Your task to perform on an android device: Open my contact list Image 0: 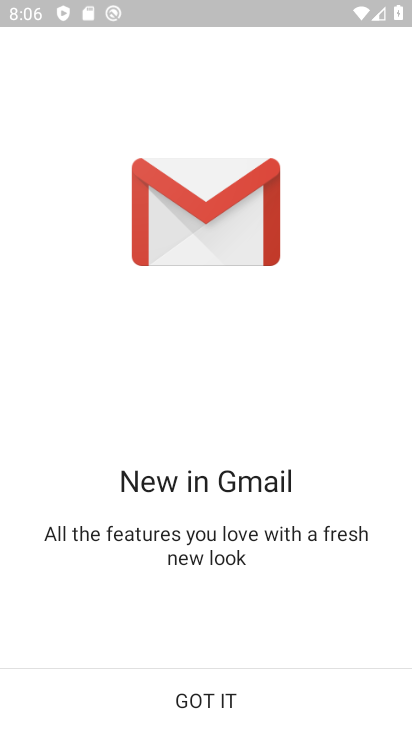
Step 0: press home button
Your task to perform on an android device: Open my contact list Image 1: 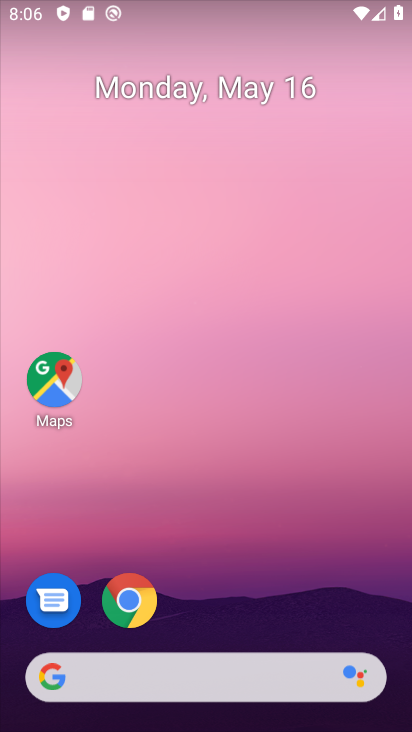
Step 1: drag from (138, 661) to (224, 261)
Your task to perform on an android device: Open my contact list Image 2: 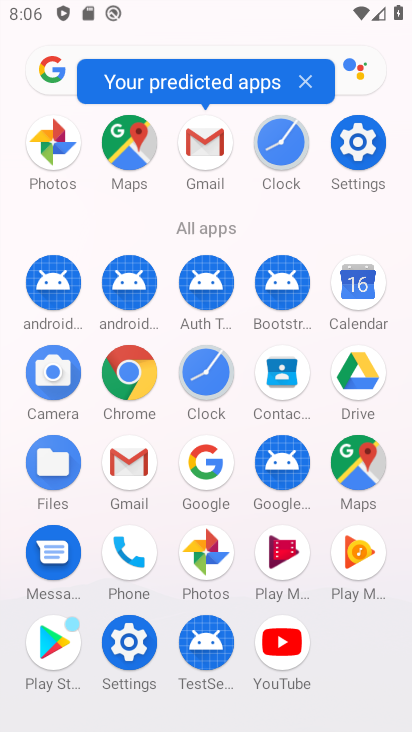
Step 2: click (286, 386)
Your task to perform on an android device: Open my contact list Image 3: 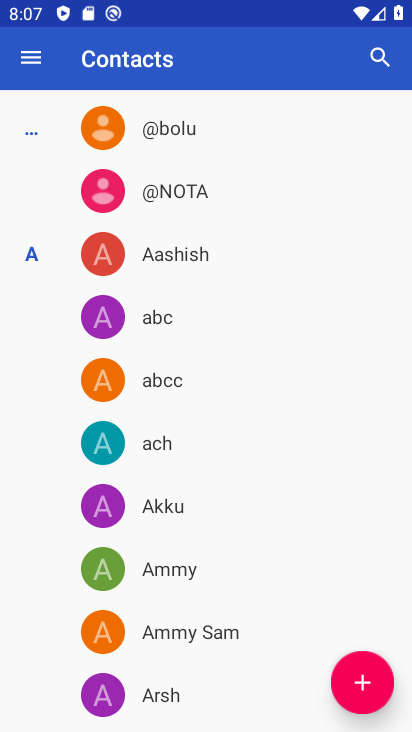
Step 3: task complete